Your task to perform on an android device: Go to wifi settings Image 0: 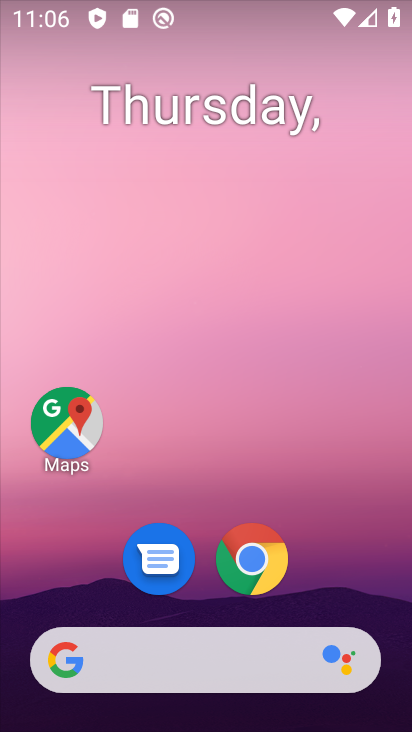
Step 0: drag from (339, 581) to (344, 102)
Your task to perform on an android device: Go to wifi settings Image 1: 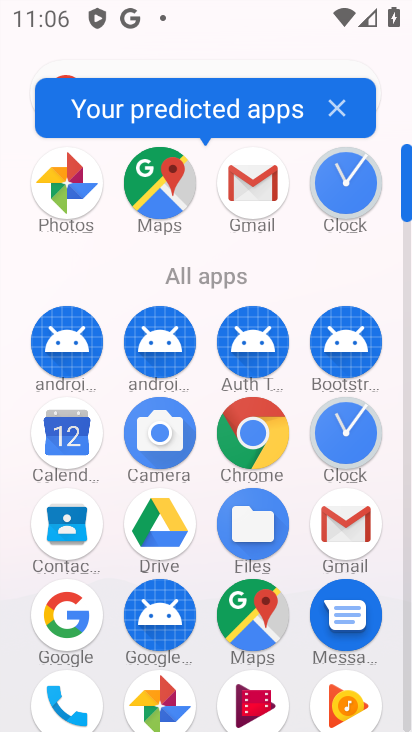
Step 1: drag from (308, 529) to (327, 213)
Your task to perform on an android device: Go to wifi settings Image 2: 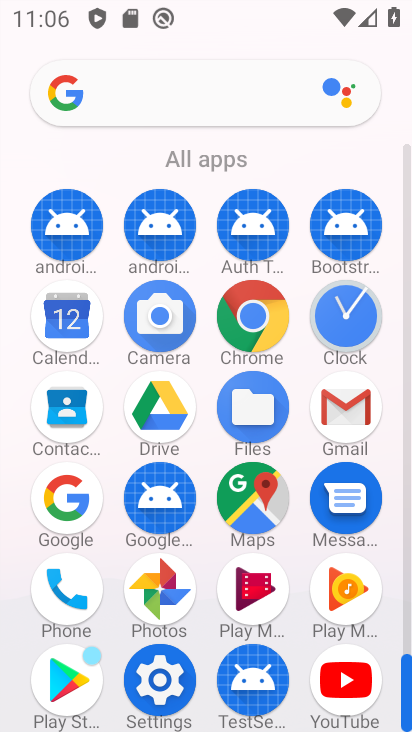
Step 2: click (170, 676)
Your task to perform on an android device: Go to wifi settings Image 3: 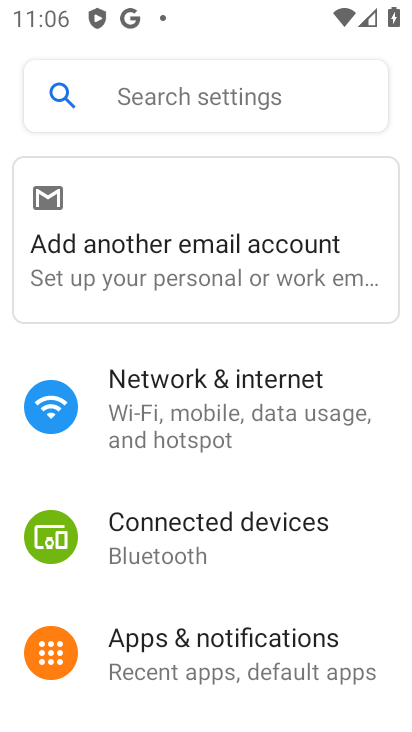
Step 3: click (244, 430)
Your task to perform on an android device: Go to wifi settings Image 4: 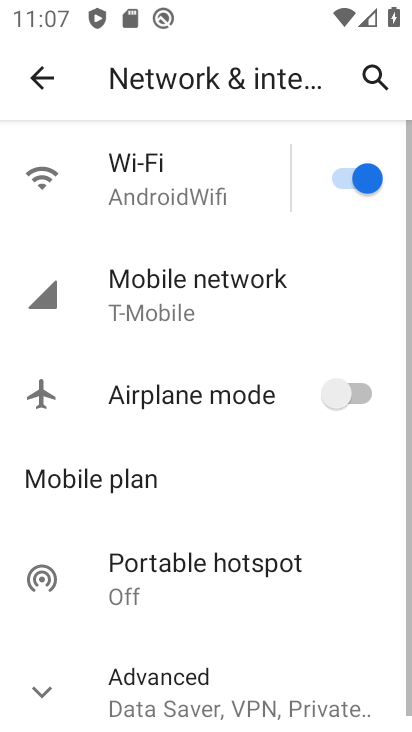
Step 4: click (167, 175)
Your task to perform on an android device: Go to wifi settings Image 5: 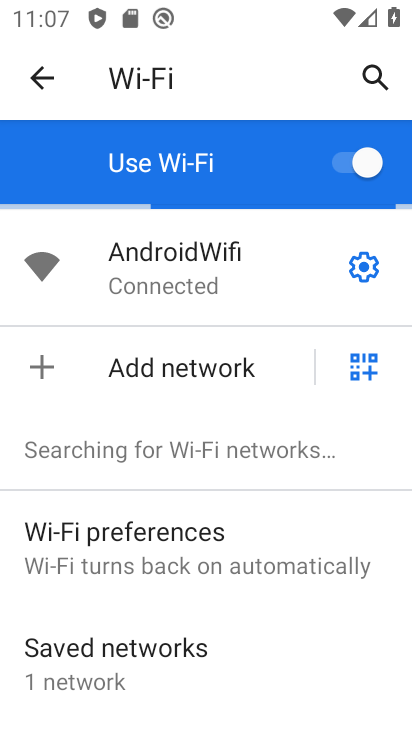
Step 5: task complete